Your task to perform on an android device: check the backup settings in the google photos Image 0: 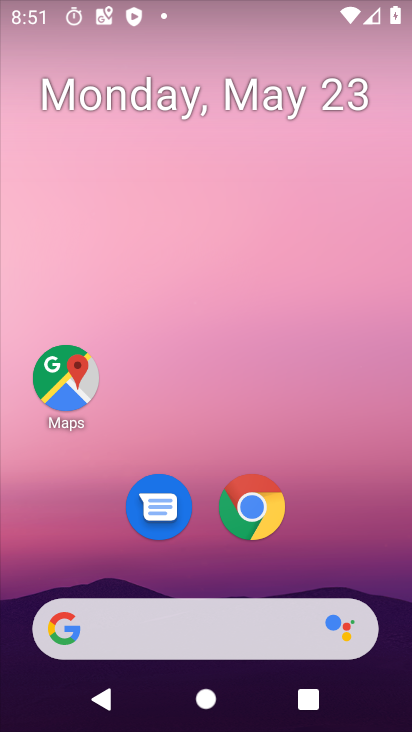
Step 0: drag from (382, 525) to (387, 96)
Your task to perform on an android device: check the backup settings in the google photos Image 1: 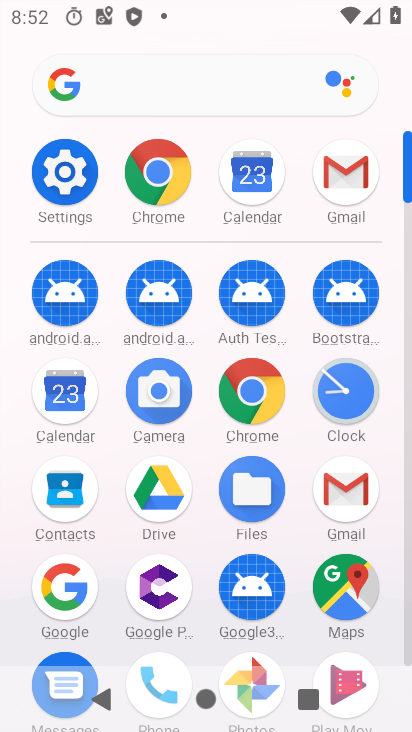
Step 1: drag from (387, 602) to (351, 377)
Your task to perform on an android device: check the backup settings in the google photos Image 2: 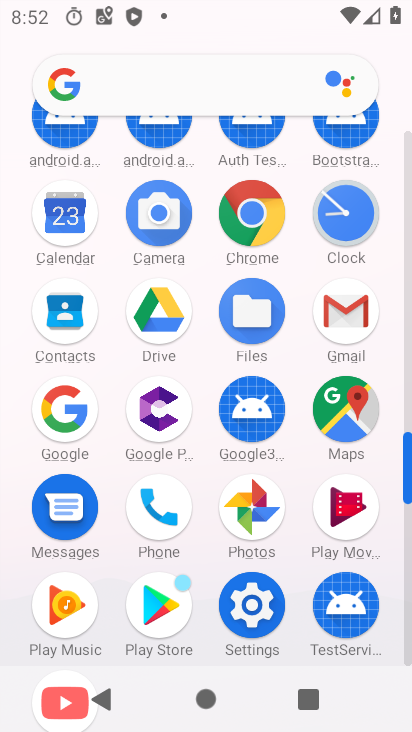
Step 2: click (237, 510)
Your task to perform on an android device: check the backup settings in the google photos Image 3: 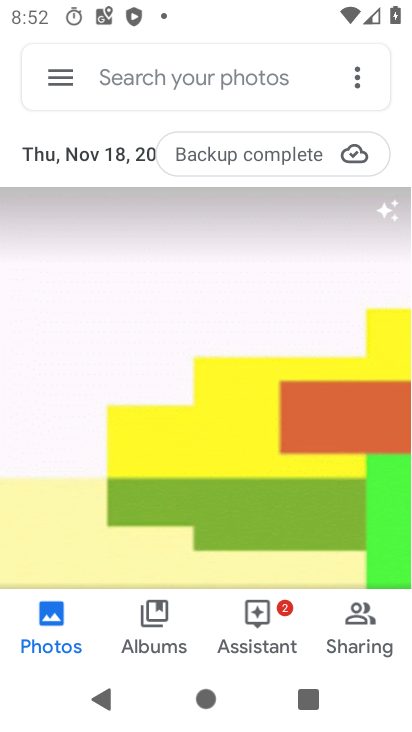
Step 3: click (46, 51)
Your task to perform on an android device: check the backup settings in the google photos Image 4: 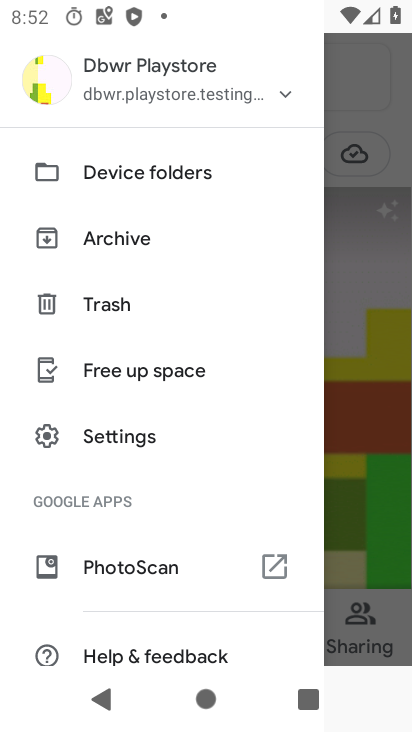
Step 4: drag from (155, 617) to (125, 304)
Your task to perform on an android device: check the backup settings in the google photos Image 5: 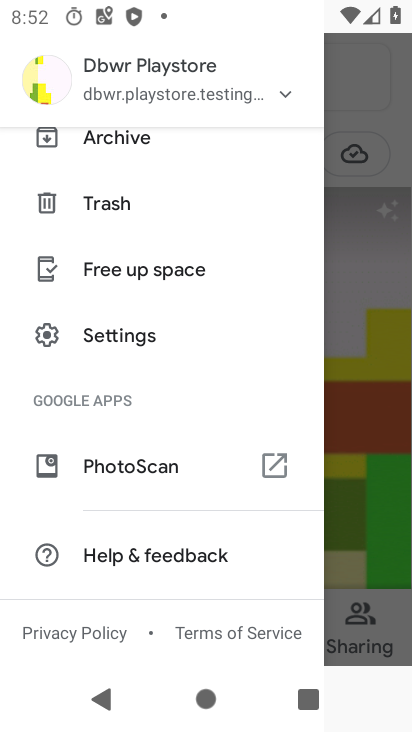
Step 5: click (116, 330)
Your task to perform on an android device: check the backup settings in the google photos Image 6: 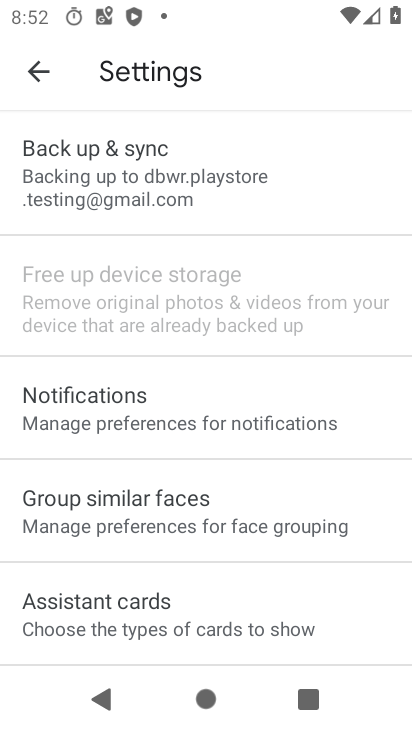
Step 6: click (132, 182)
Your task to perform on an android device: check the backup settings in the google photos Image 7: 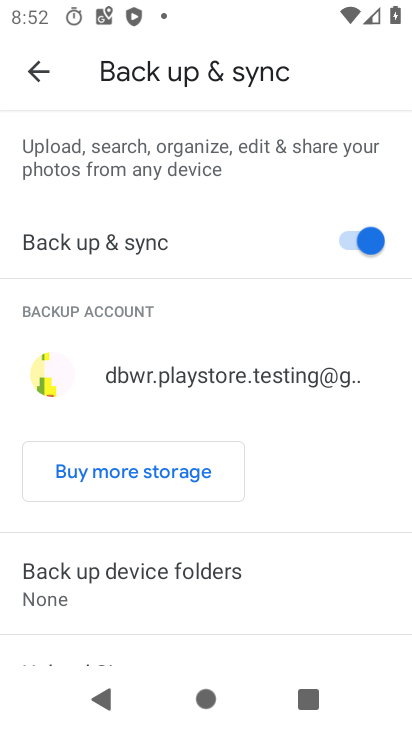
Step 7: task complete